Your task to perform on an android device: When is my next appointment? Image 0: 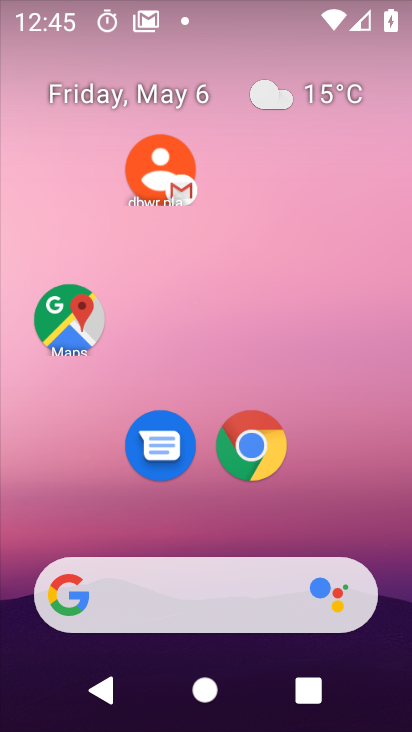
Step 0: drag from (371, 543) to (148, 100)
Your task to perform on an android device: When is my next appointment? Image 1: 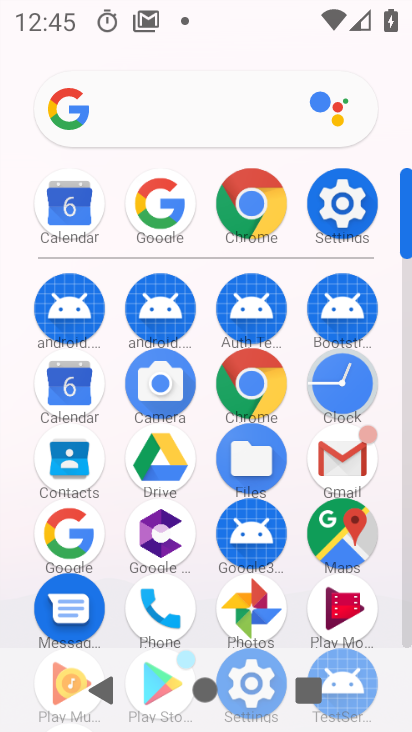
Step 1: click (78, 394)
Your task to perform on an android device: When is my next appointment? Image 2: 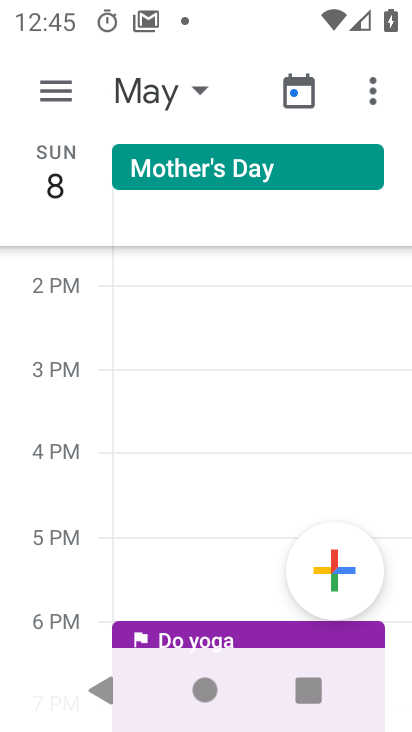
Step 2: click (195, 98)
Your task to perform on an android device: When is my next appointment? Image 3: 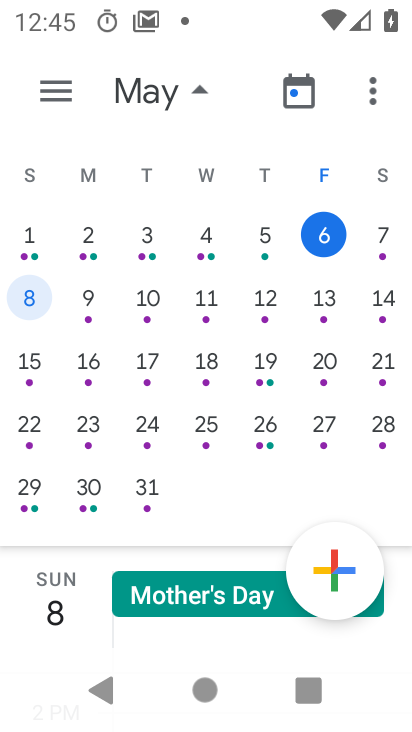
Step 3: drag from (208, 453) to (176, 138)
Your task to perform on an android device: When is my next appointment? Image 4: 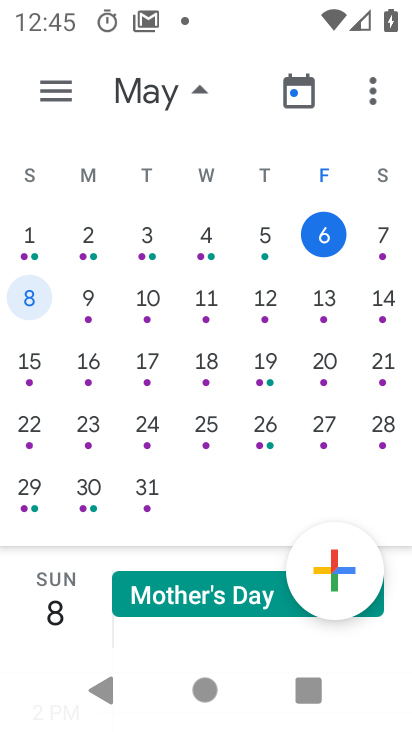
Step 4: drag from (184, 177) to (173, 99)
Your task to perform on an android device: When is my next appointment? Image 5: 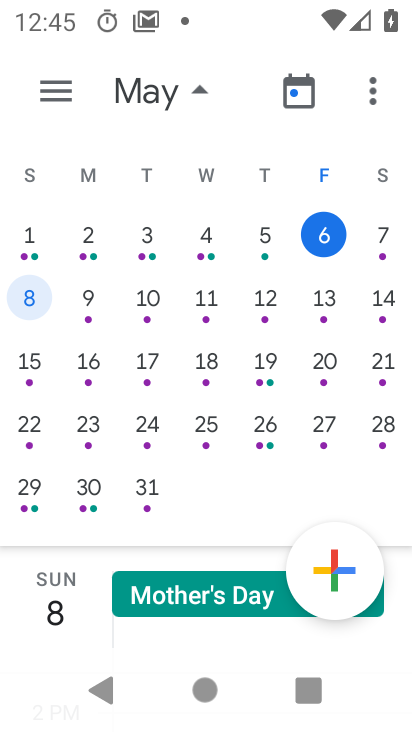
Step 5: drag from (186, 606) to (205, 217)
Your task to perform on an android device: When is my next appointment? Image 6: 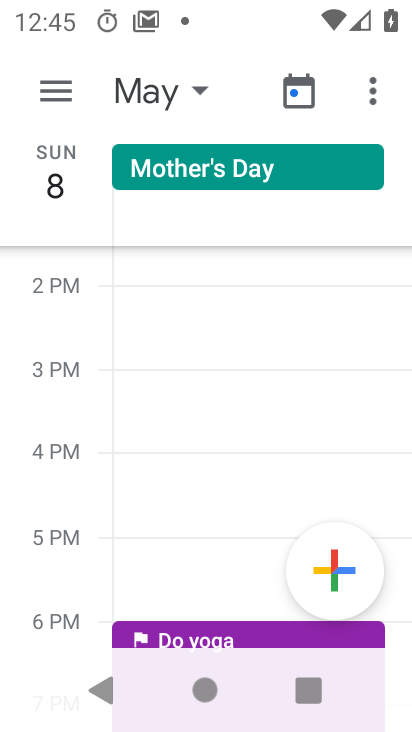
Step 6: drag from (204, 487) to (111, 177)
Your task to perform on an android device: When is my next appointment? Image 7: 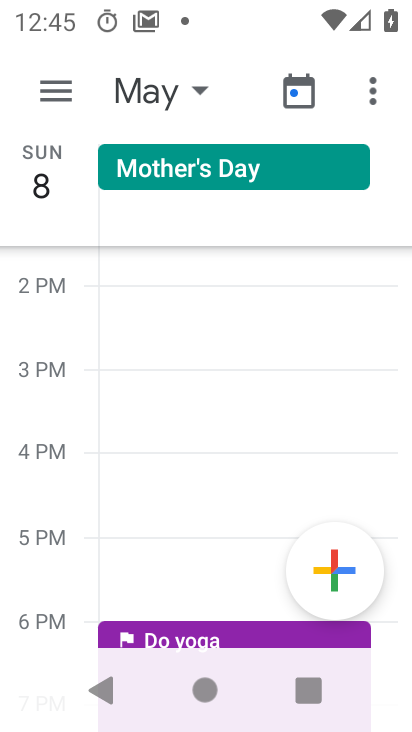
Step 7: drag from (162, 332) to (145, 623)
Your task to perform on an android device: When is my next appointment? Image 8: 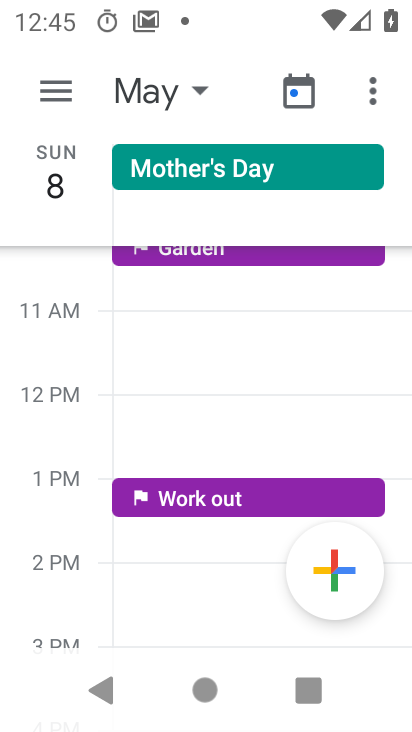
Step 8: click (195, 95)
Your task to perform on an android device: When is my next appointment? Image 9: 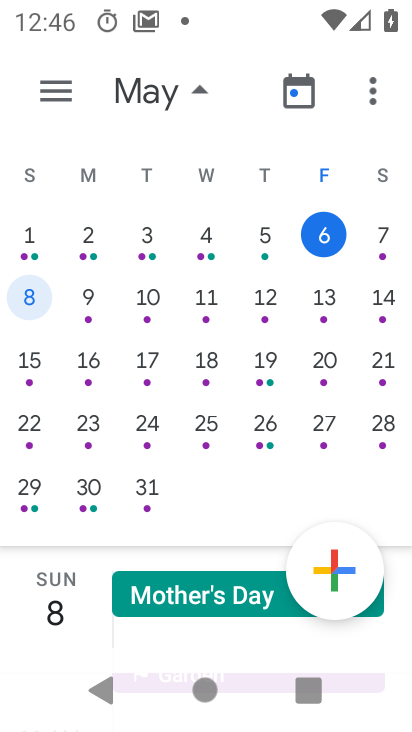
Step 9: task complete